Your task to perform on an android device: Check the weather Image 0: 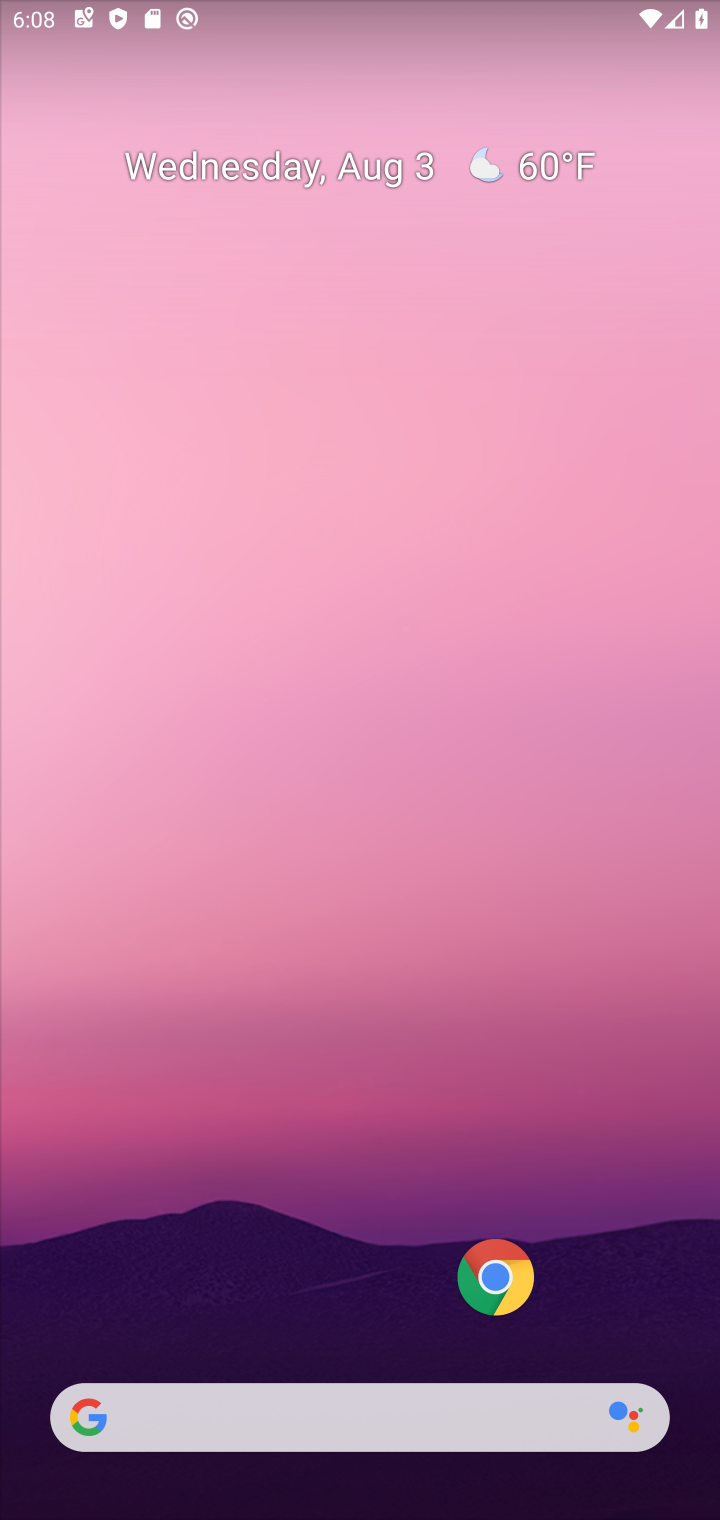
Step 0: click (502, 168)
Your task to perform on an android device: Check the weather Image 1: 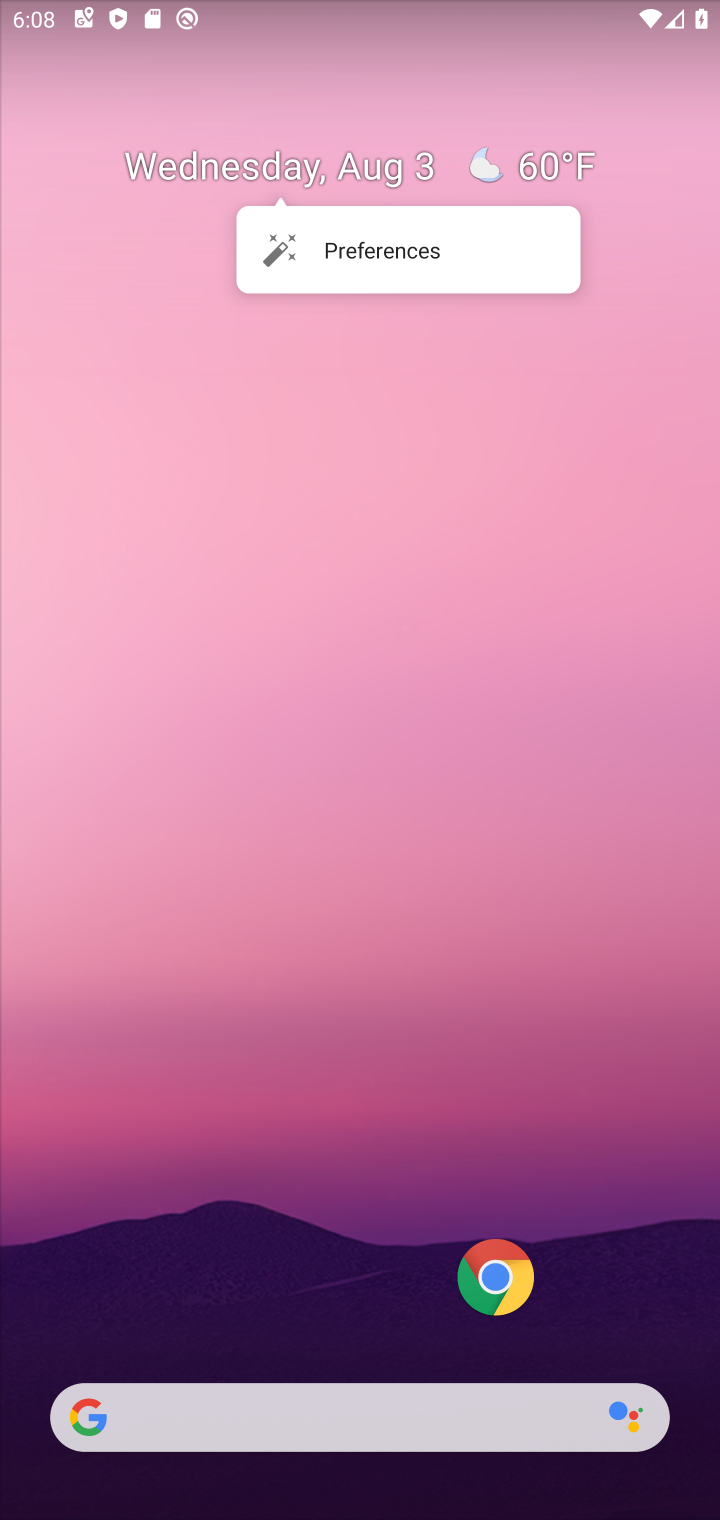
Step 1: click (502, 166)
Your task to perform on an android device: Check the weather Image 2: 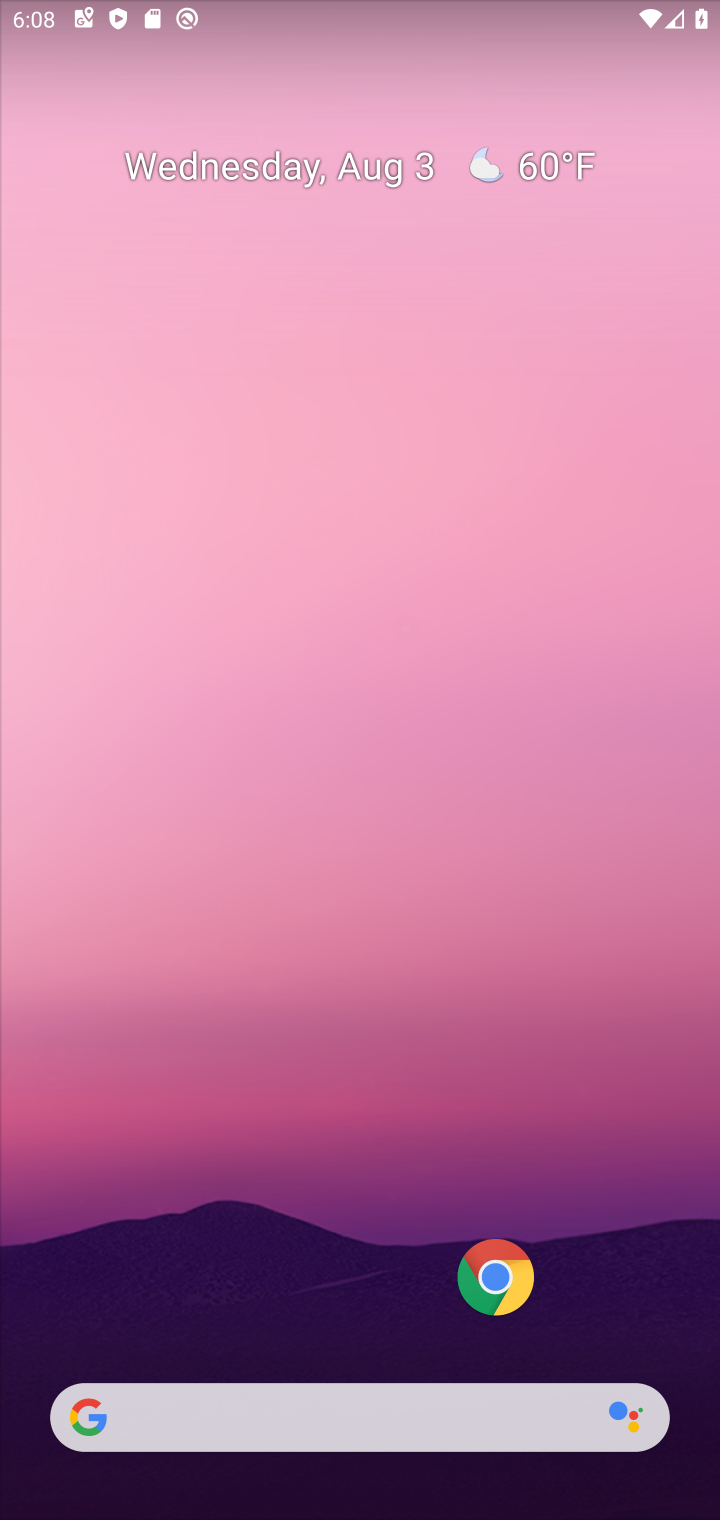
Step 2: click (252, 1419)
Your task to perform on an android device: Check the weather Image 3: 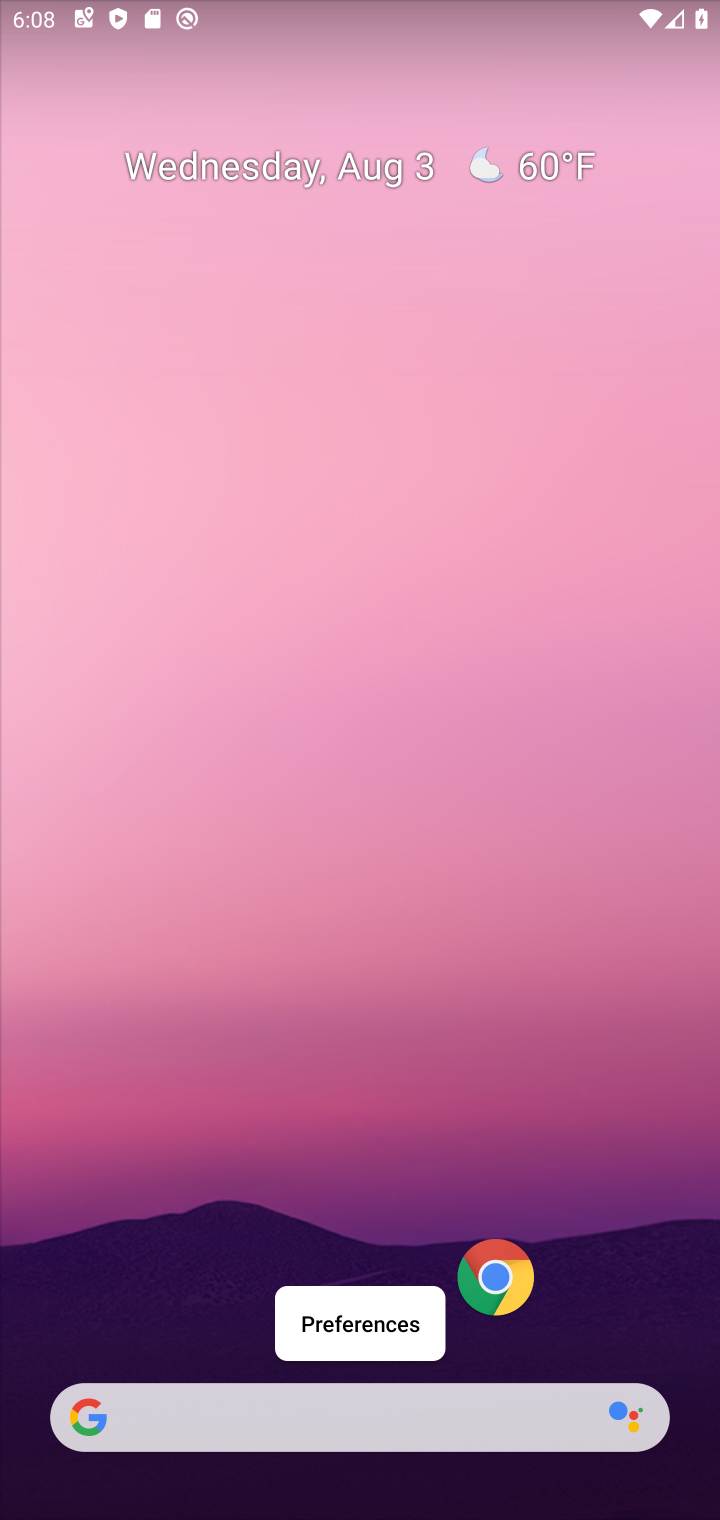
Step 3: click (334, 1394)
Your task to perform on an android device: Check the weather Image 4: 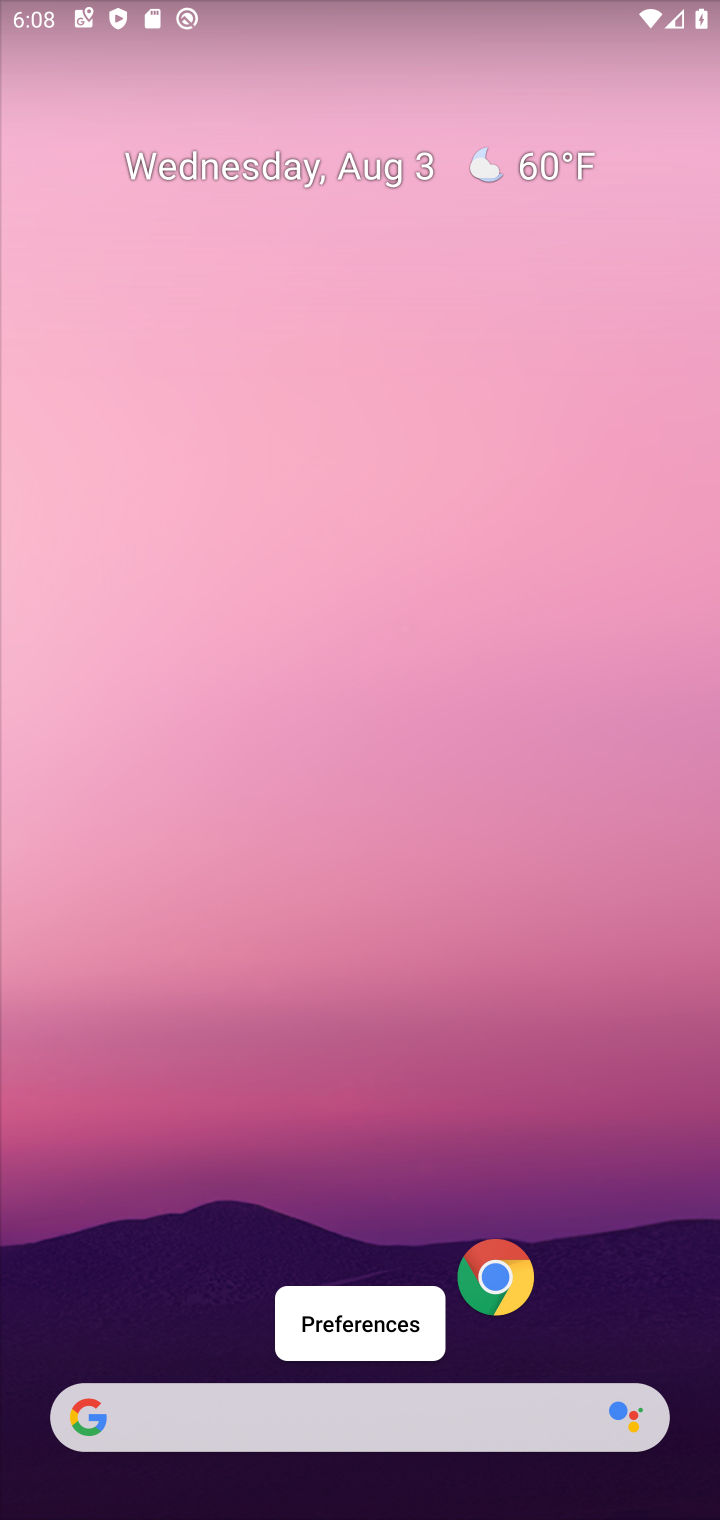
Step 4: click (324, 1416)
Your task to perform on an android device: Check the weather Image 5: 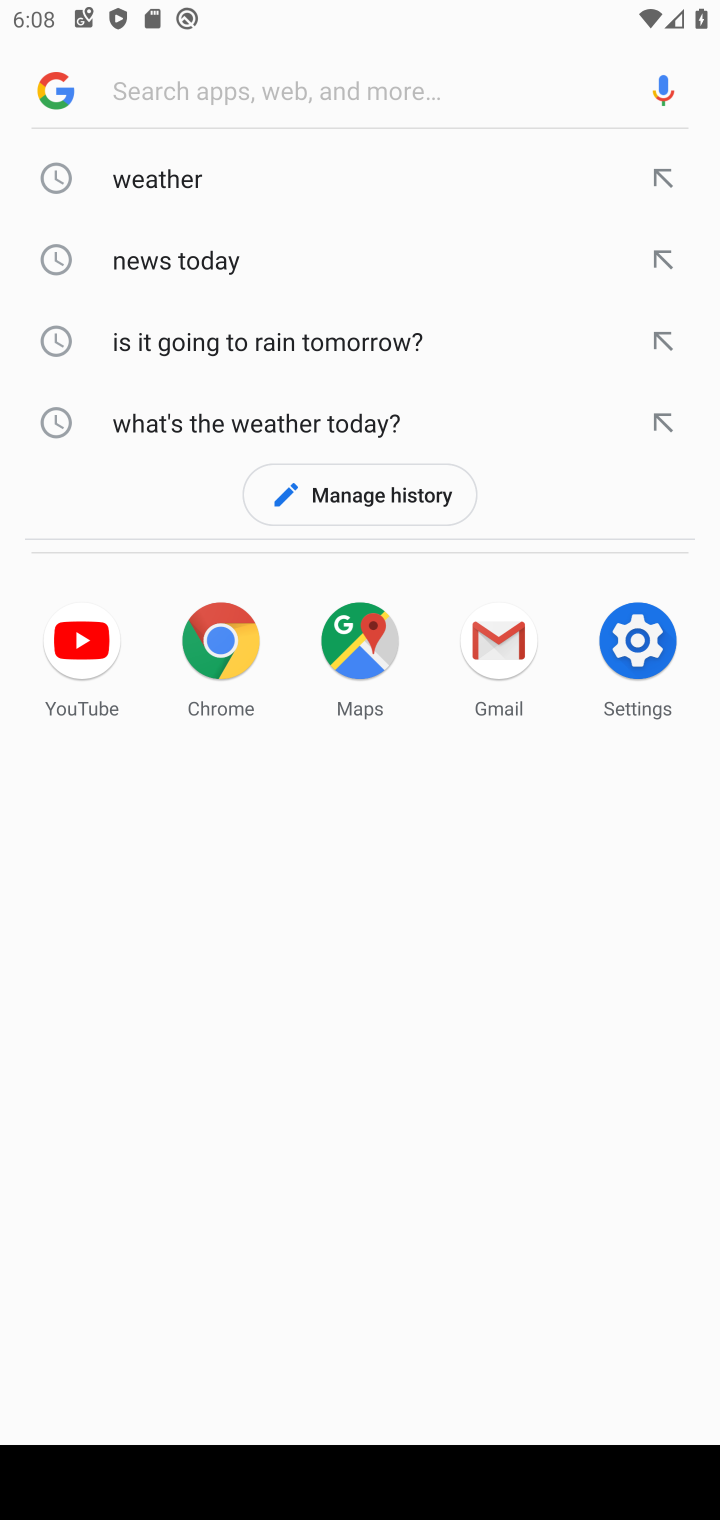
Step 5: click (160, 173)
Your task to perform on an android device: Check the weather Image 6: 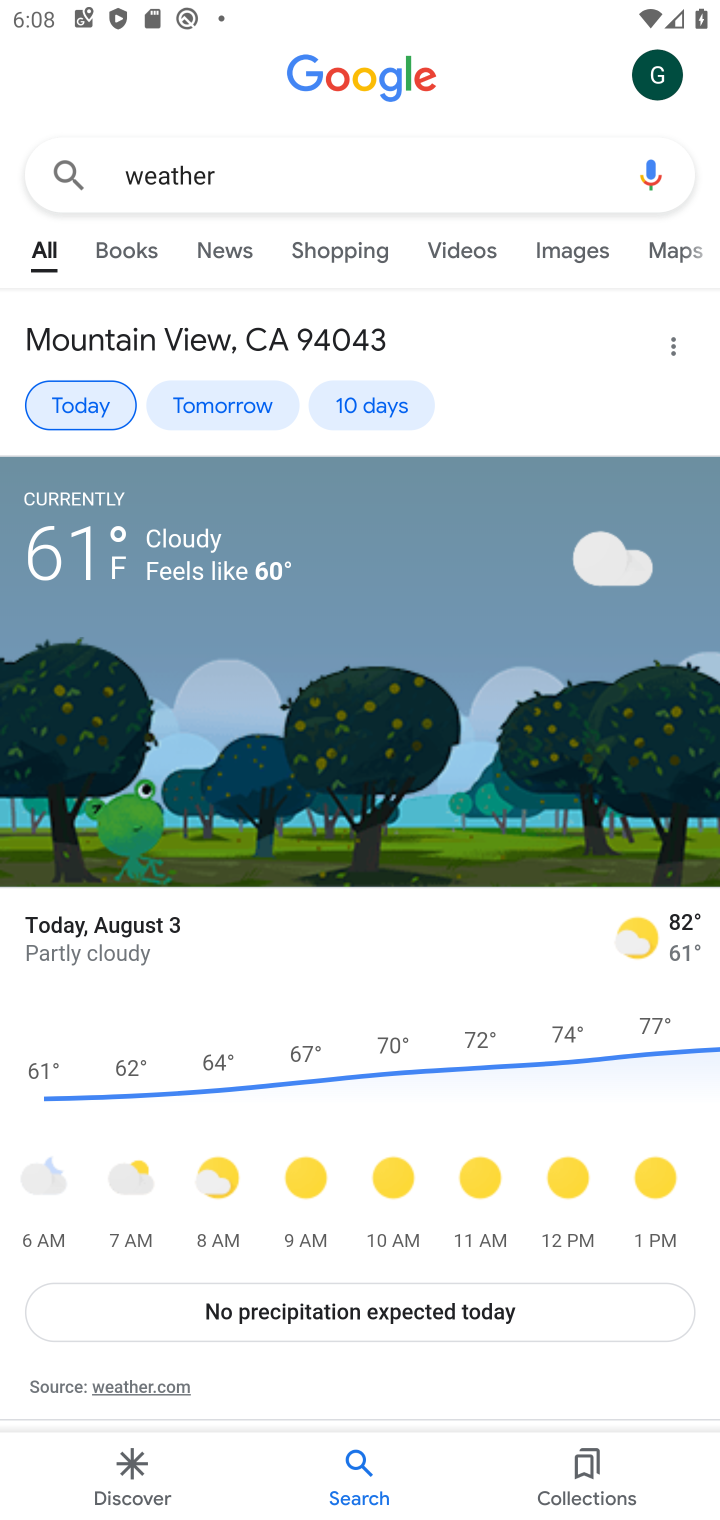
Step 6: task complete